Your task to perform on an android device: Go to calendar. Show me events next week Image 0: 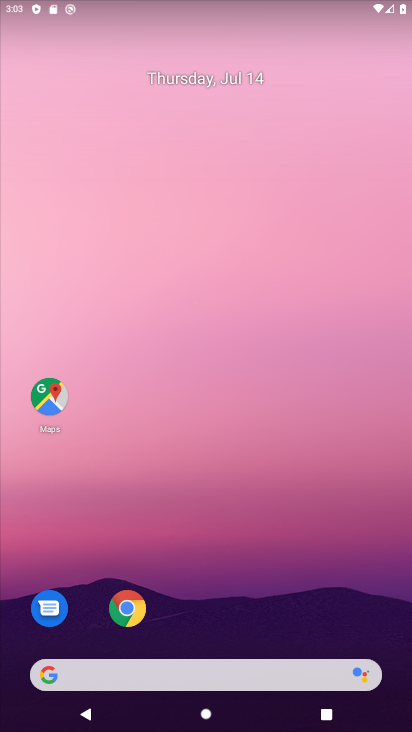
Step 0: drag from (219, 655) to (203, 104)
Your task to perform on an android device: Go to calendar. Show me events next week Image 1: 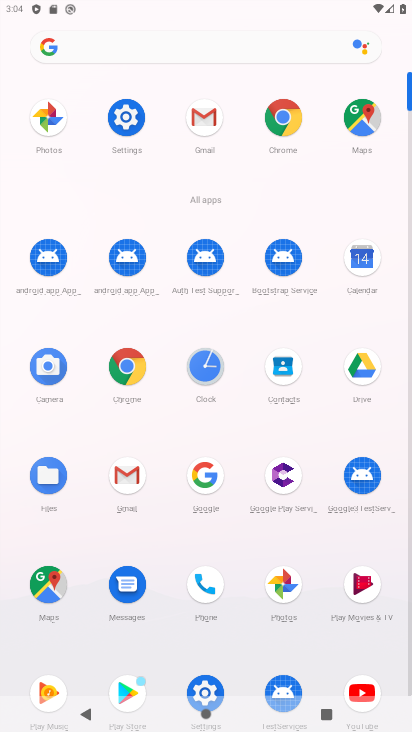
Step 1: click (365, 265)
Your task to perform on an android device: Go to calendar. Show me events next week Image 2: 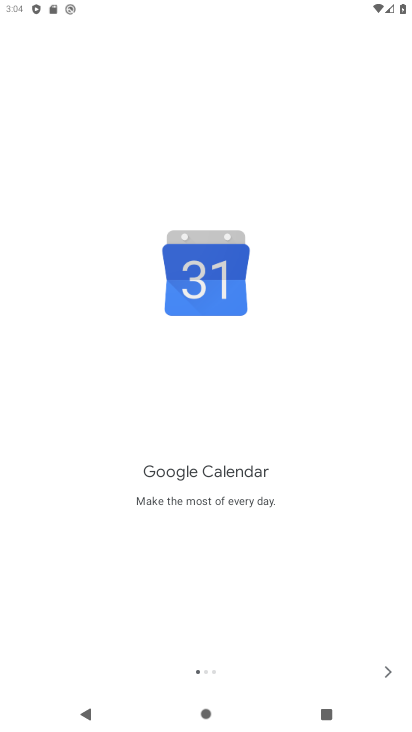
Step 2: click (393, 670)
Your task to perform on an android device: Go to calendar. Show me events next week Image 3: 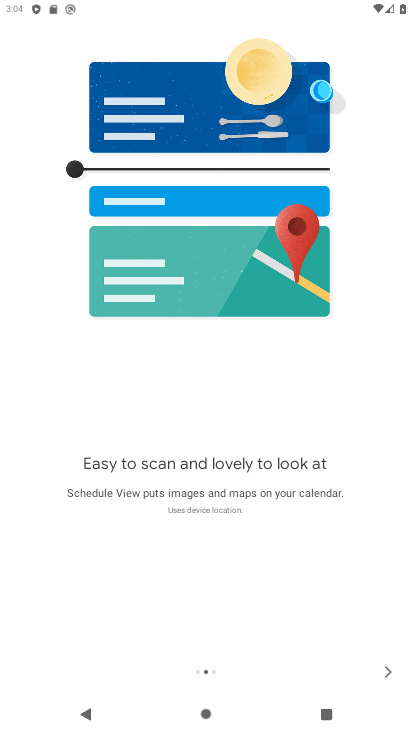
Step 3: click (379, 667)
Your task to perform on an android device: Go to calendar. Show me events next week Image 4: 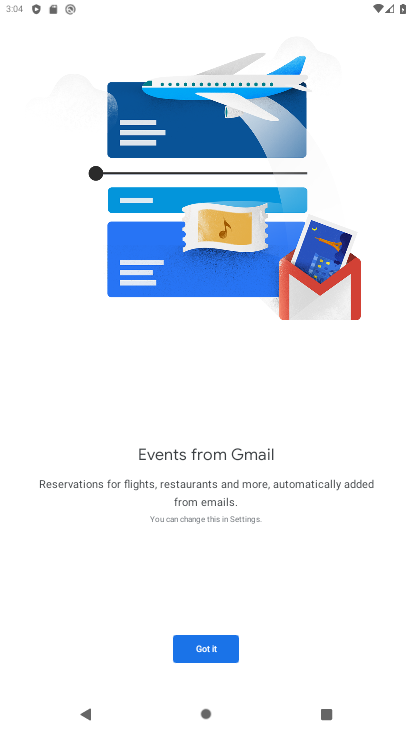
Step 4: click (199, 645)
Your task to perform on an android device: Go to calendar. Show me events next week Image 5: 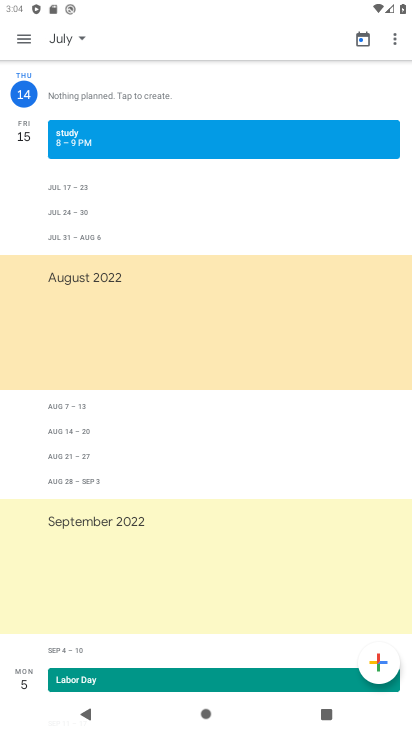
Step 5: click (15, 36)
Your task to perform on an android device: Go to calendar. Show me events next week Image 6: 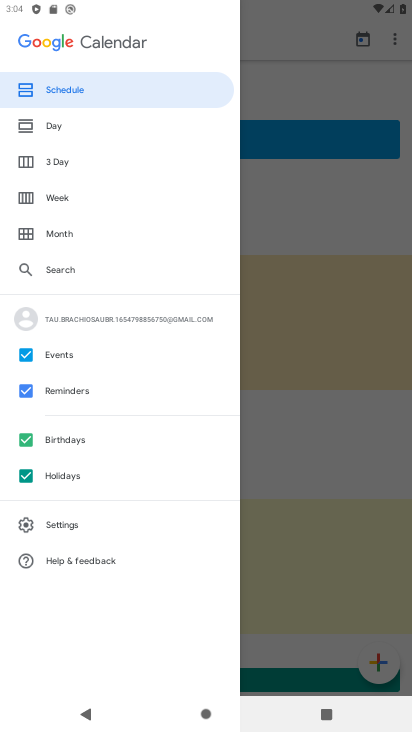
Step 6: click (61, 195)
Your task to perform on an android device: Go to calendar. Show me events next week Image 7: 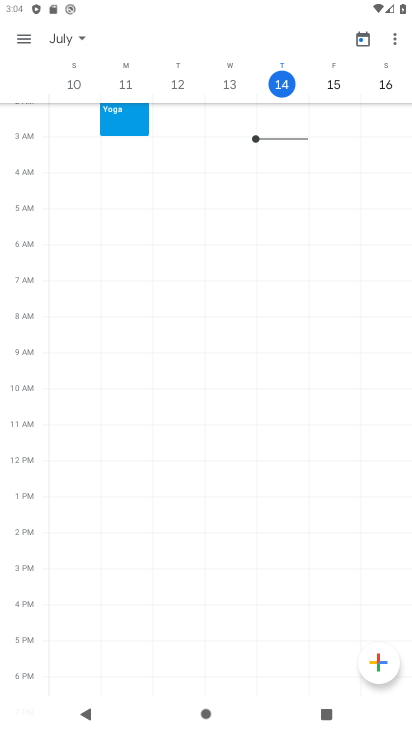
Step 7: task complete